Your task to perform on an android device: Open Google Chrome Image 0: 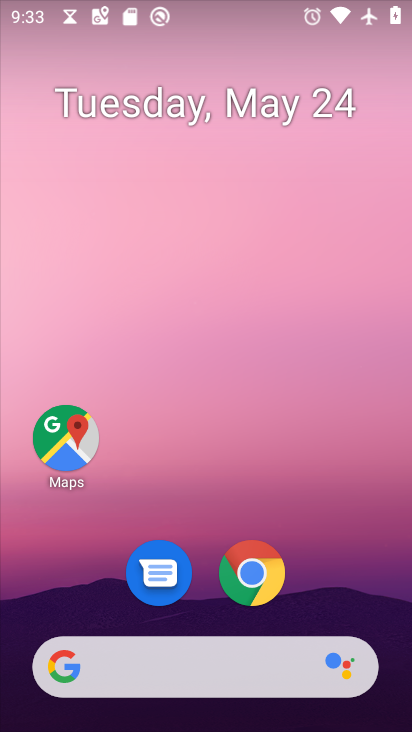
Step 0: drag from (333, 598) to (366, 103)
Your task to perform on an android device: Open Google Chrome Image 1: 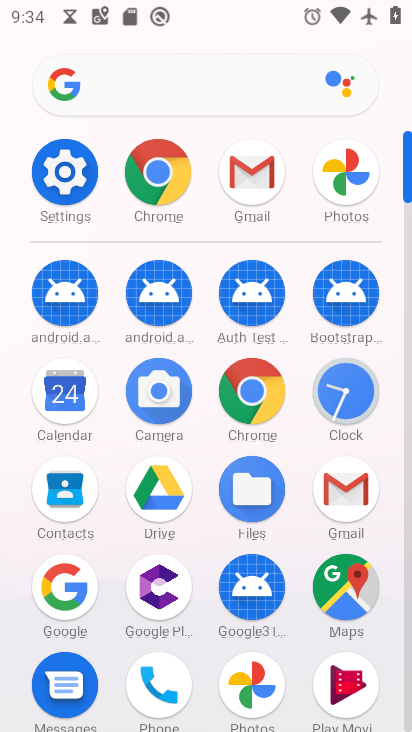
Step 1: click (155, 169)
Your task to perform on an android device: Open Google Chrome Image 2: 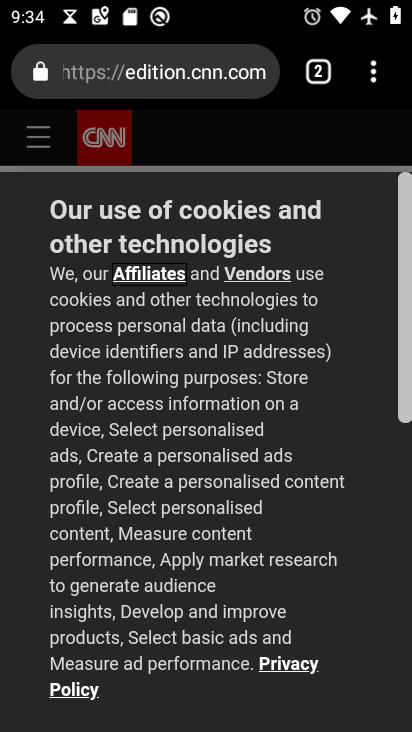
Step 2: task complete